Your task to perform on an android device: Open Android settings Image 0: 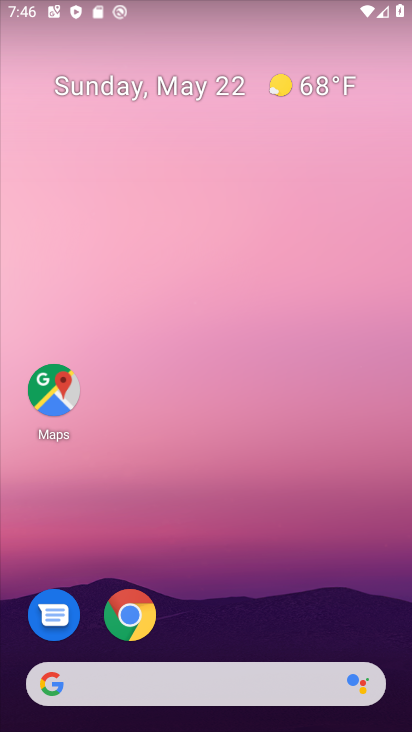
Step 0: drag from (227, 654) to (98, 125)
Your task to perform on an android device: Open Android settings Image 1: 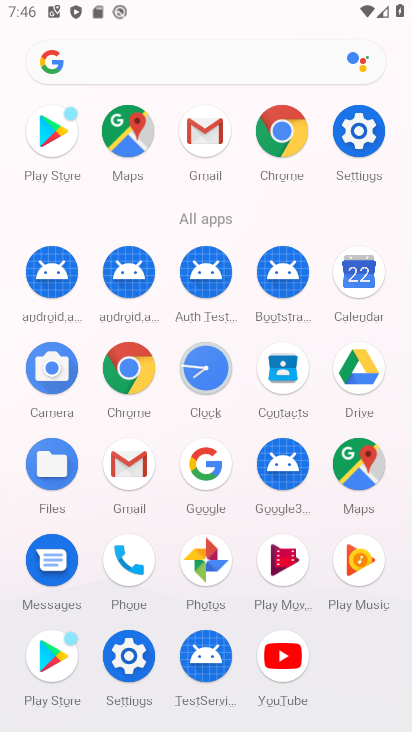
Step 1: click (361, 133)
Your task to perform on an android device: Open Android settings Image 2: 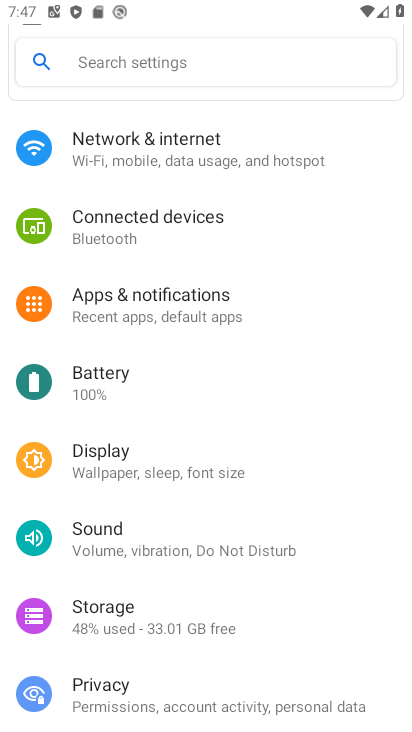
Step 2: task complete